Your task to perform on an android device: turn on sleep mode Image 0: 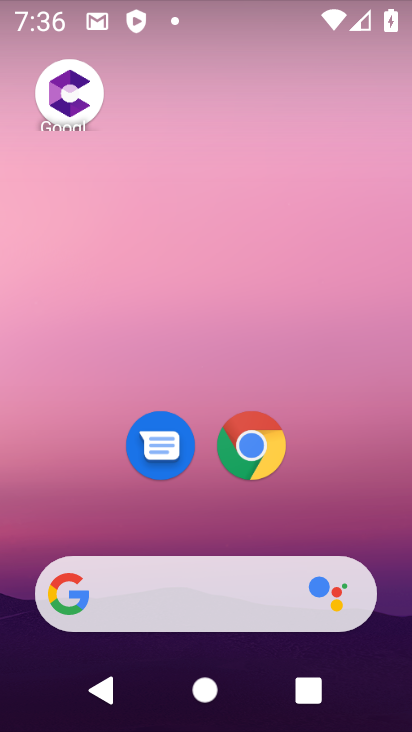
Step 0: drag from (279, 678) to (307, 309)
Your task to perform on an android device: turn on sleep mode Image 1: 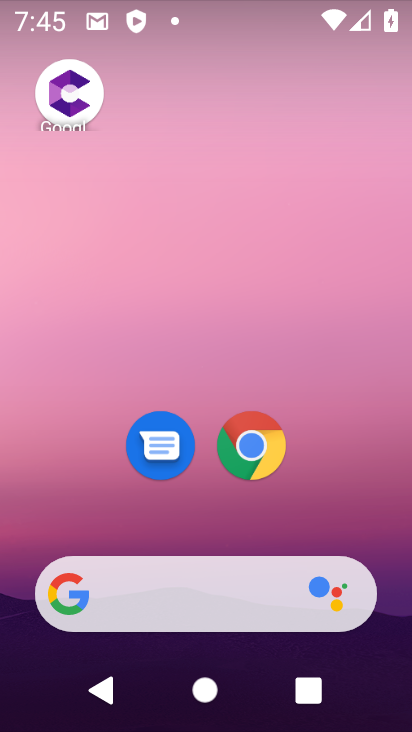
Step 1: drag from (241, 670) to (274, 19)
Your task to perform on an android device: turn on sleep mode Image 2: 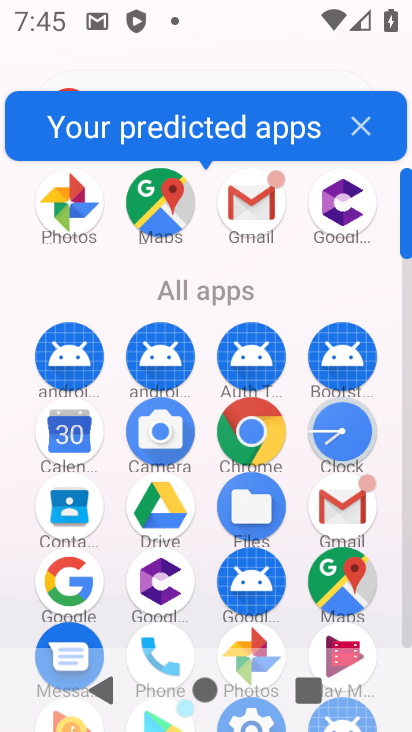
Step 2: drag from (258, 540) to (240, 135)
Your task to perform on an android device: turn on sleep mode Image 3: 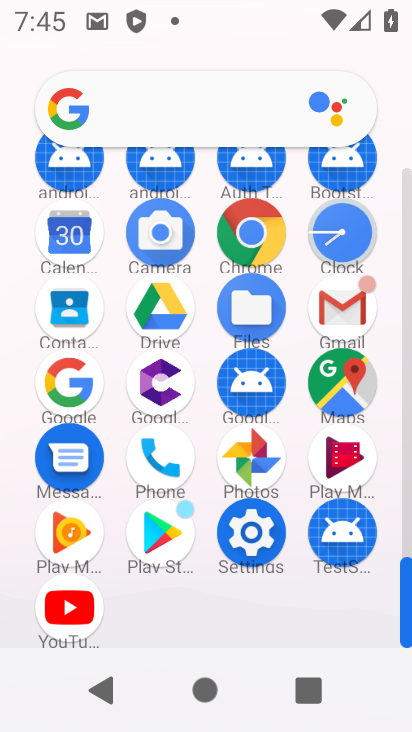
Step 3: click (262, 524)
Your task to perform on an android device: turn on sleep mode Image 4: 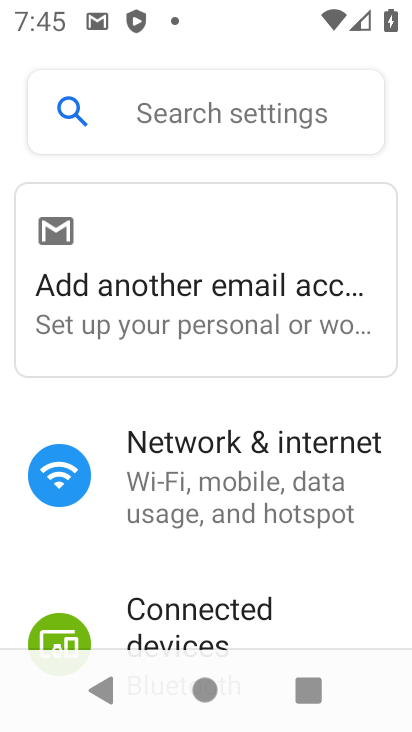
Step 4: drag from (268, 600) to (217, 98)
Your task to perform on an android device: turn on sleep mode Image 5: 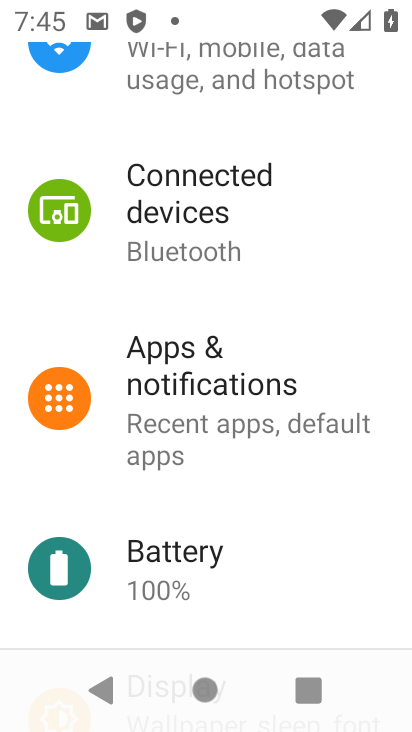
Step 5: drag from (189, 541) to (190, 32)
Your task to perform on an android device: turn on sleep mode Image 6: 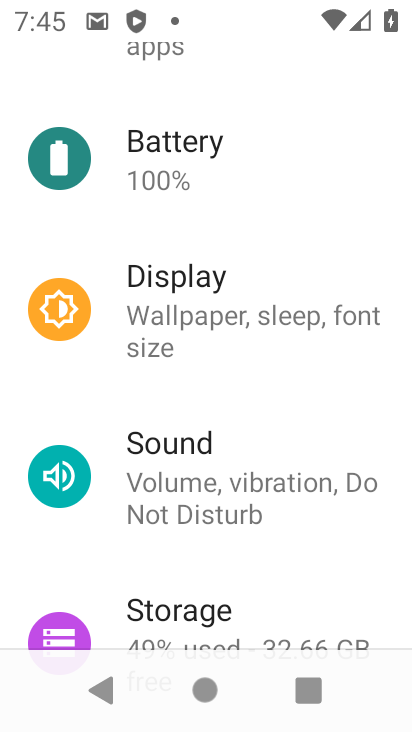
Step 6: click (320, 320)
Your task to perform on an android device: turn on sleep mode Image 7: 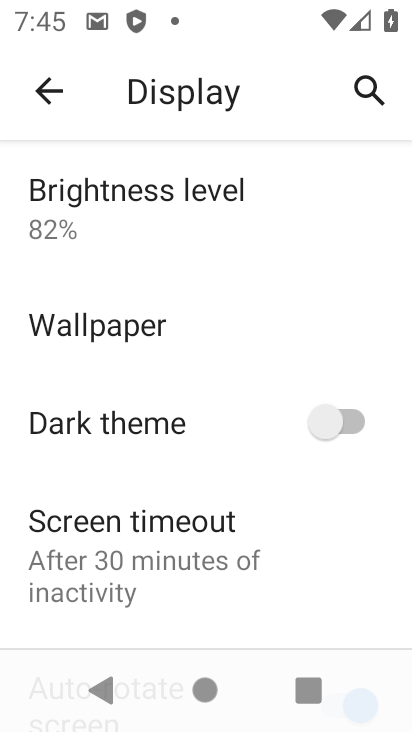
Step 7: task complete